Your task to perform on an android device: turn on sleep mode Image 0: 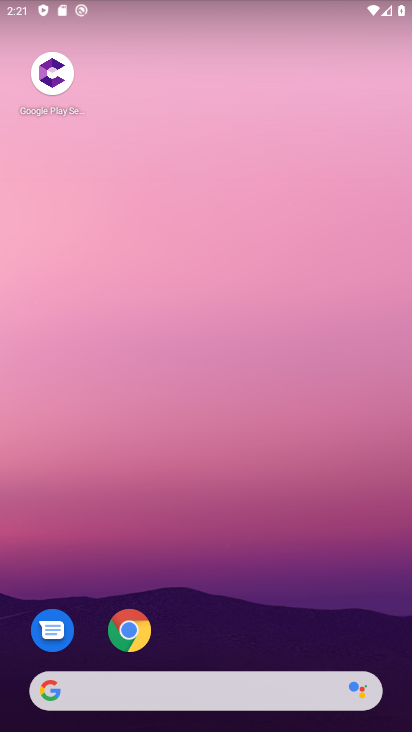
Step 0: drag from (213, 674) to (185, 154)
Your task to perform on an android device: turn on sleep mode Image 1: 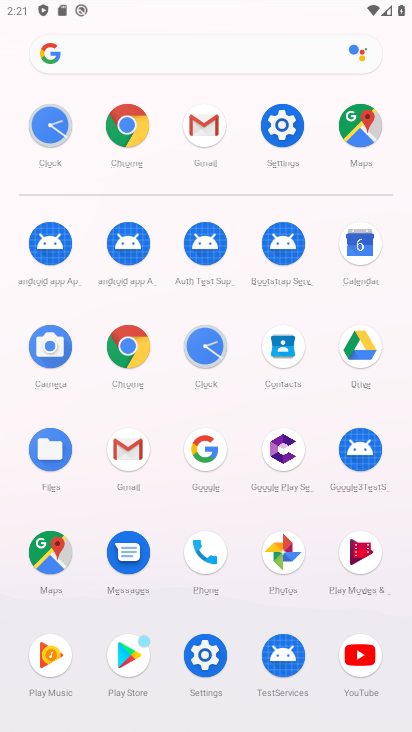
Step 1: click (270, 136)
Your task to perform on an android device: turn on sleep mode Image 2: 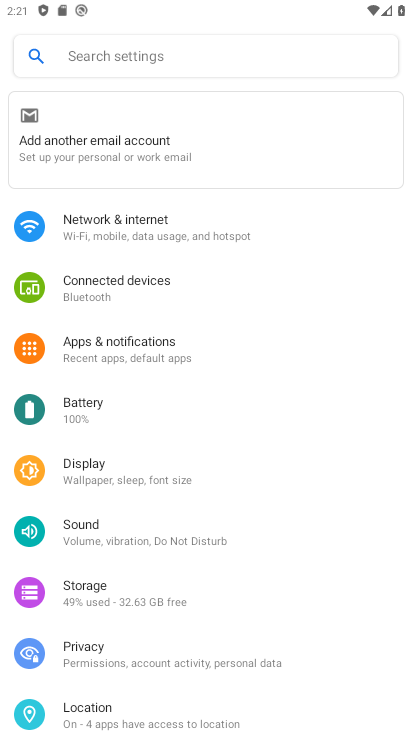
Step 2: click (83, 479)
Your task to perform on an android device: turn on sleep mode Image 3: 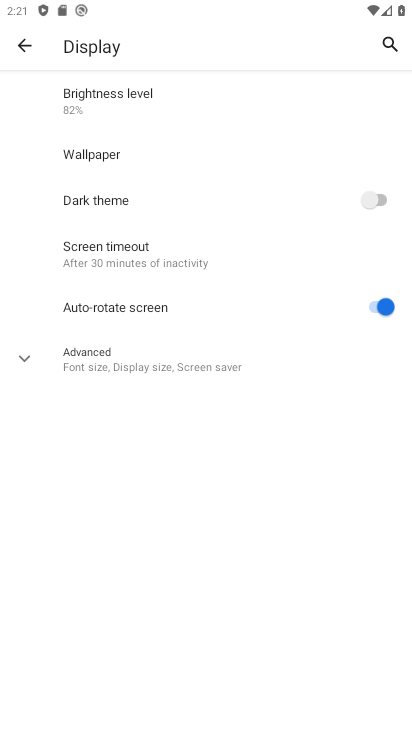
Step 3: task complete